Your task to perform on an android device: What is the news today? Image 0: 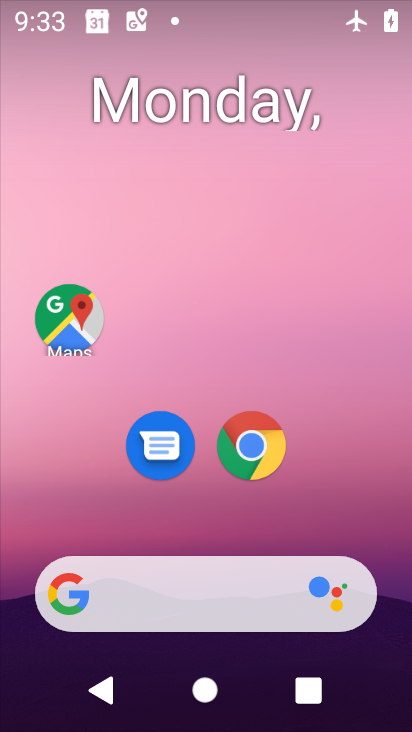
Step 0: click (260, 597)
Your task to perform on an android device: What is the news today? Image 1: 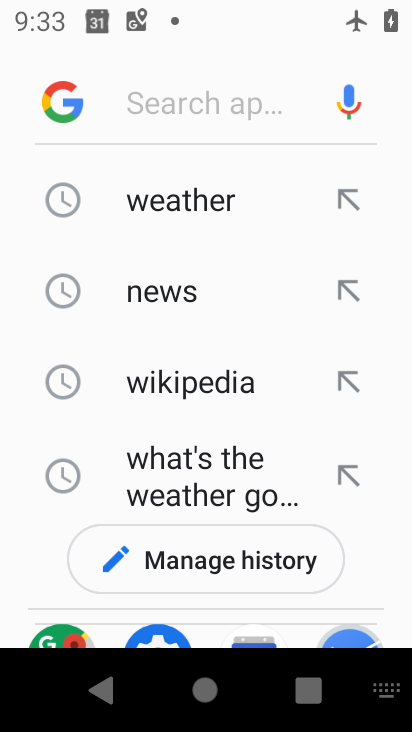
Step 1: type "news today"
Your task to perform on an android device: What is the news today? Image 2: 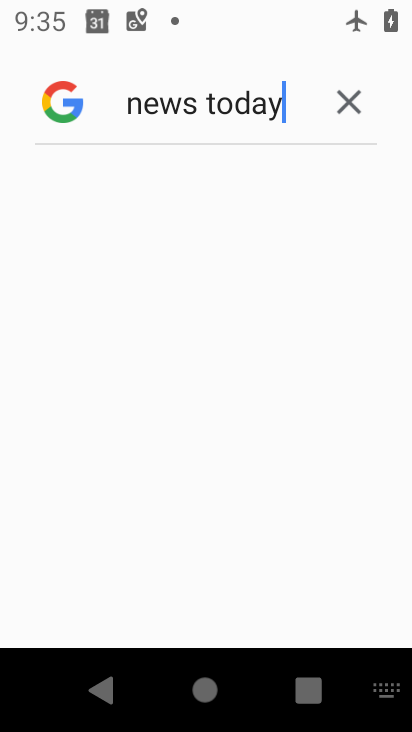
Step 2: task complete